Your task to perform on an android device: Open Maps and search for coffee Image 0: 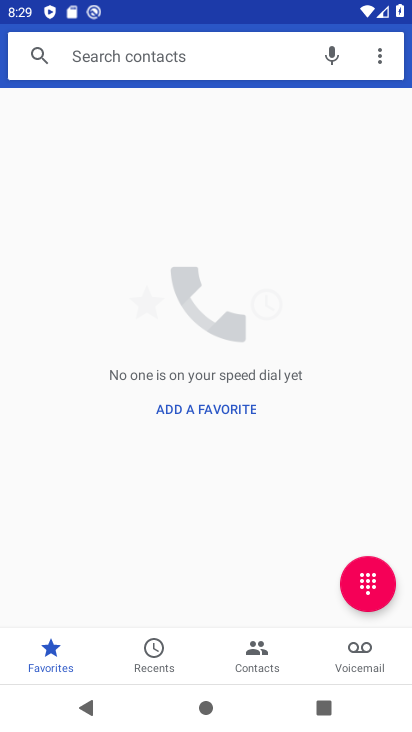
Step 0: press home button
Your task to perform on an android device: Open Maps and search for coffee Image 1: 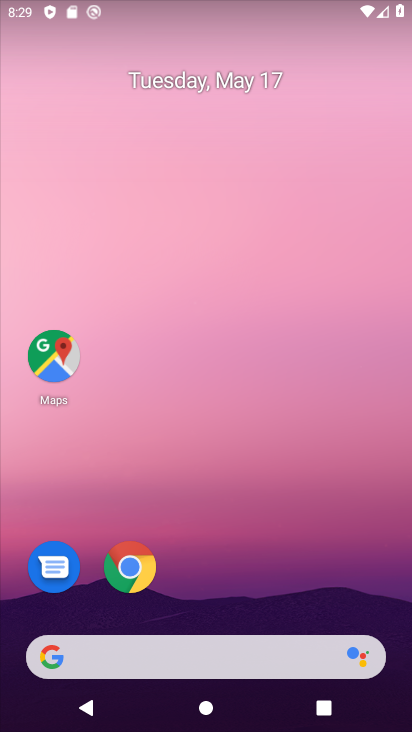
Step 1: click (50, 361)
Your task to perform on an android device: Open Maps and search for coffee Image 2: 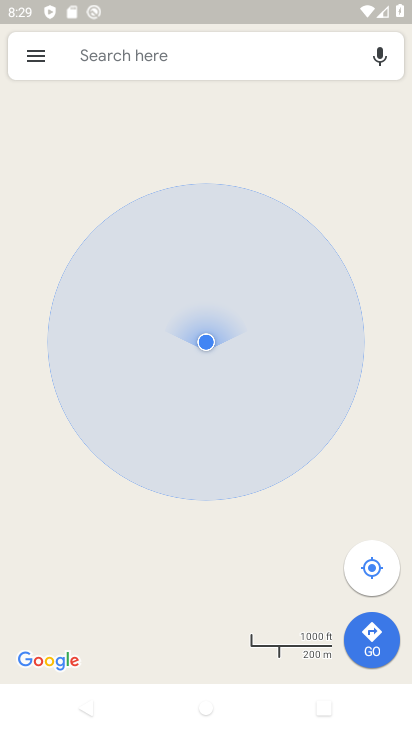
Step 2: click (189, 58)
Your task to perform on an android device: Open Maps and search for coffee Image 3: 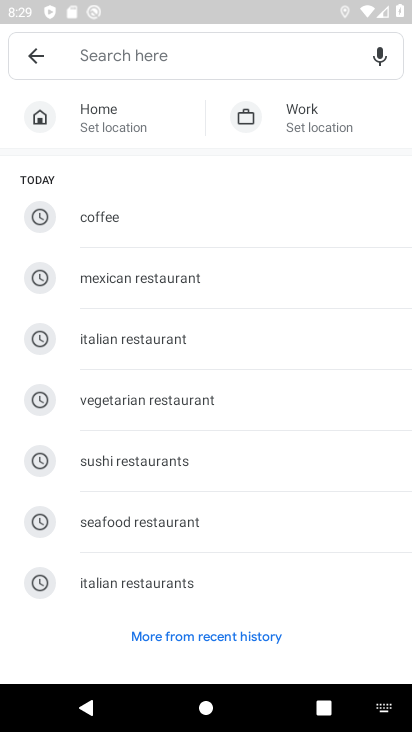
Step 3: click (100, 213)
Your task to perform on an android device: Open Maps and search for coffee Image 4: 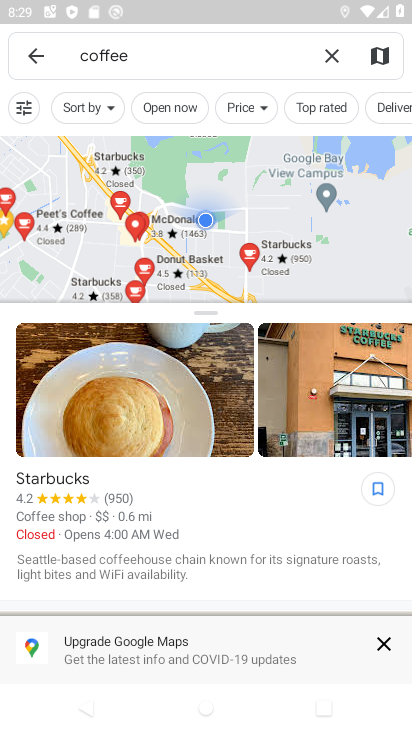
Step 4: task complete